Your task to perform on an android device: Go to location settings Image 0: 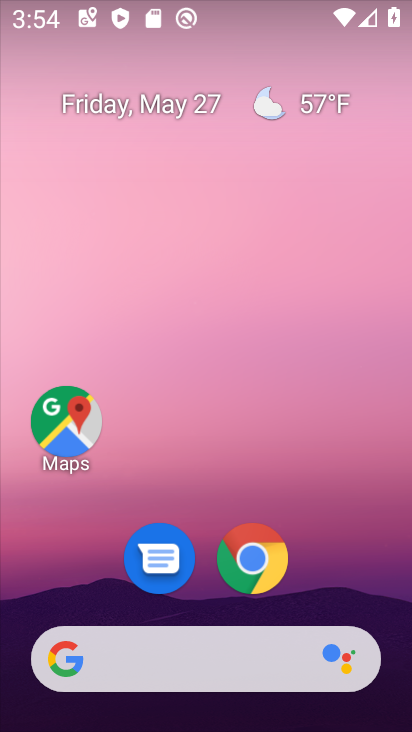
Step 0: drag from (350, 586) to (244, 1)
Your task to perform on an android device: Go to location settings Image 1: 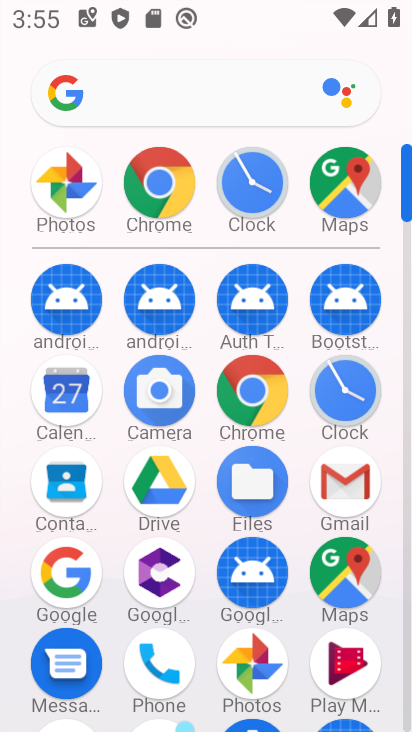
Step 1: click (410, 620)
Your task to perform on an android device: Go to location settings Image 2: 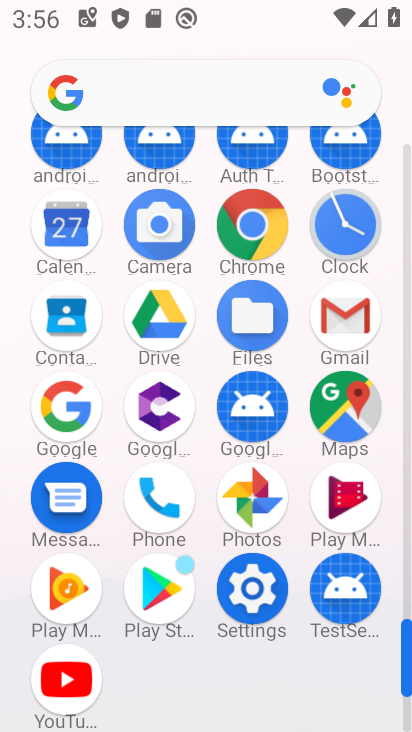
Step 2: click (246, 588)
Your task to perform on an android device: Go to location settings Image 3: 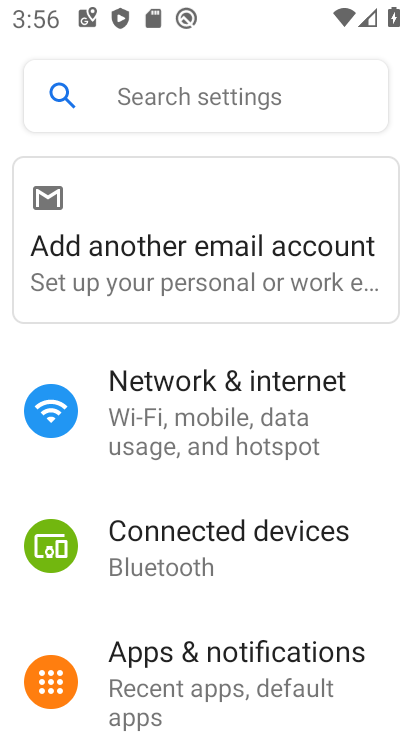
Step 3: drag from (211, 596) to (205, 63)
Your task to perform on an android device: Go to location settings Image 4: 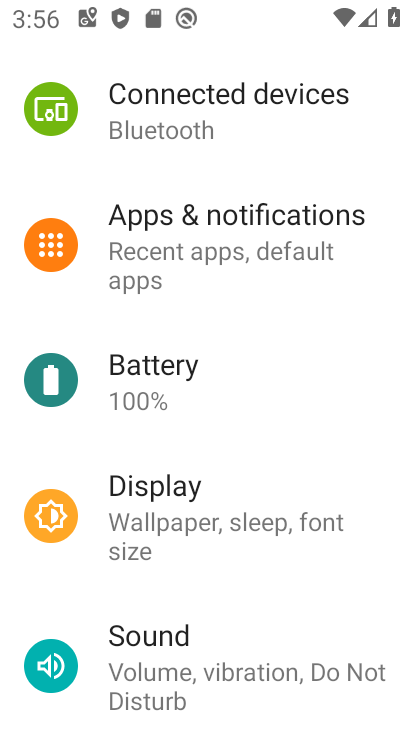
Step 4: drag from (208, 639) to (201, 277)
Your task to perform on an android device: Go to location settings Image 5: 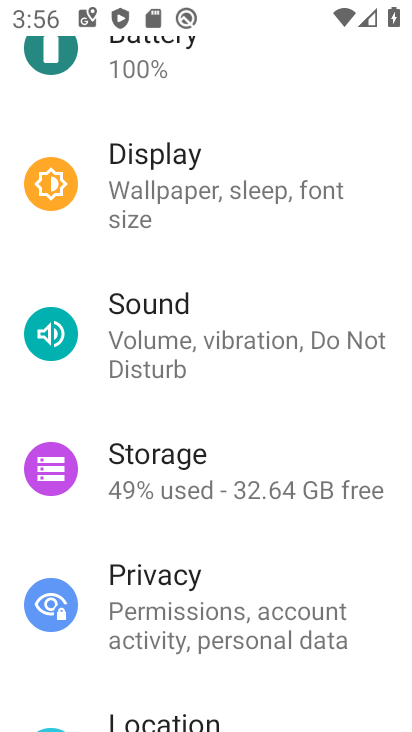
Step 5: drag from (221, 545) to (222, 320)
Your task to perform on an android device: Go to location settings Image 6: 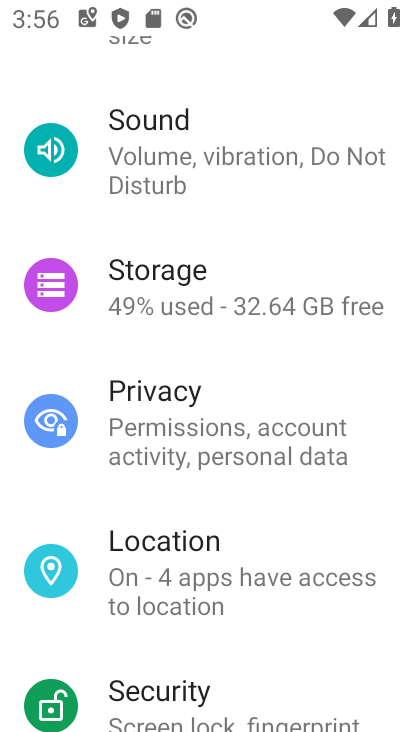
Step 6: click (217, 583)
Your task to perform on an android device: Go to location settings Image 7: 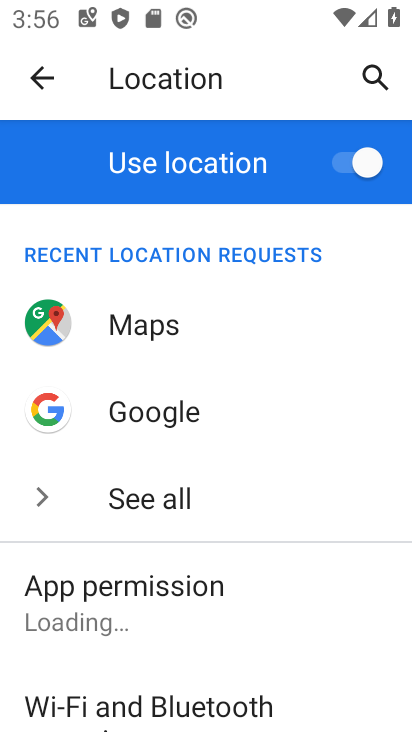
Step 7: task complete